Your task to perform on an android device: What is the news today? Image 0: 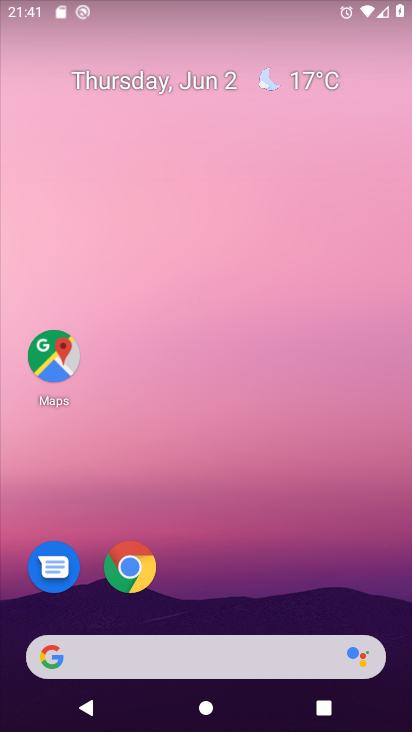
Step 0: click (203, 654)
Your task to perform on an android device: What is the news today? Image 1: 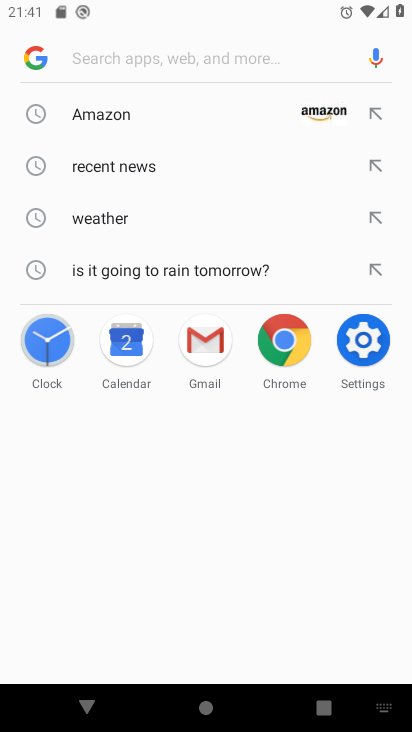
Step 1: type "news today ?"
Your task to perform on an android device: What is the news today? Image 2: 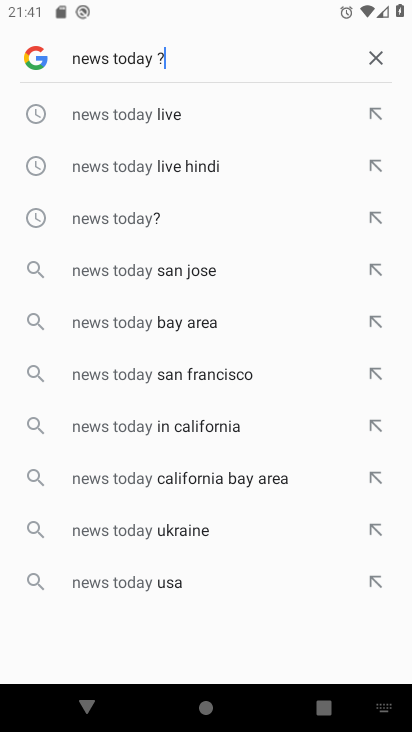
Step 2: click (144, 225)
Your task to perform on an android device: What is the news today? Image 3: 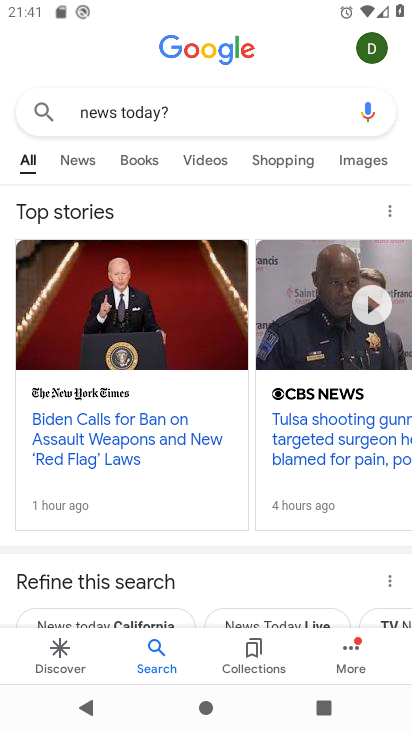
Step 3: task complete